Your task to perform on an android device: find which apps use the phone's location Image 0: 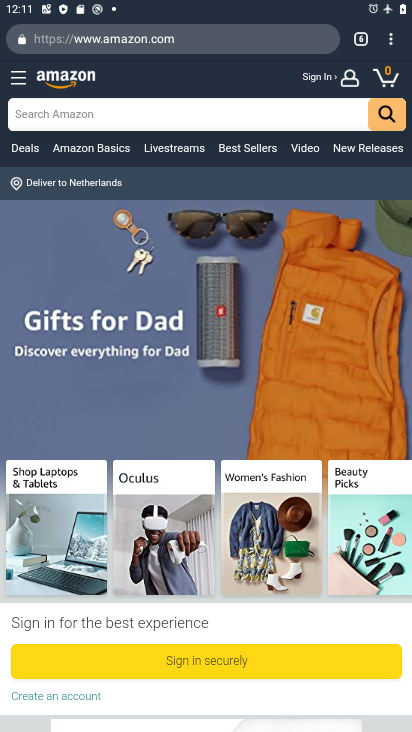
Step 0: press home button
Your task to perform on an android device: find which apps use the phone's location Image 1: 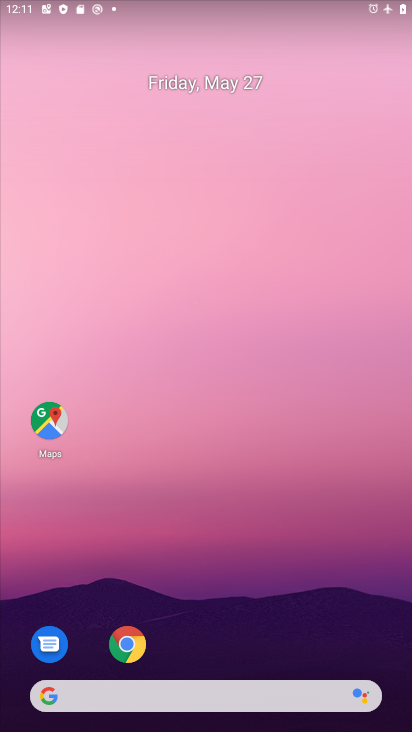
Step 1: drag from (203, 627) to (192, 190)
Your task to perform on an android device: find which apps use the phone's location Image 2: 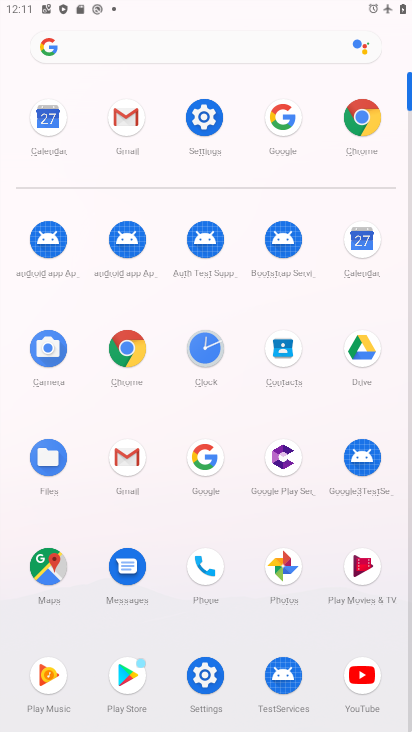
Step 2: click (220, 103)
Your task to perform on an android device: find which apps use the phone's location Image 3: 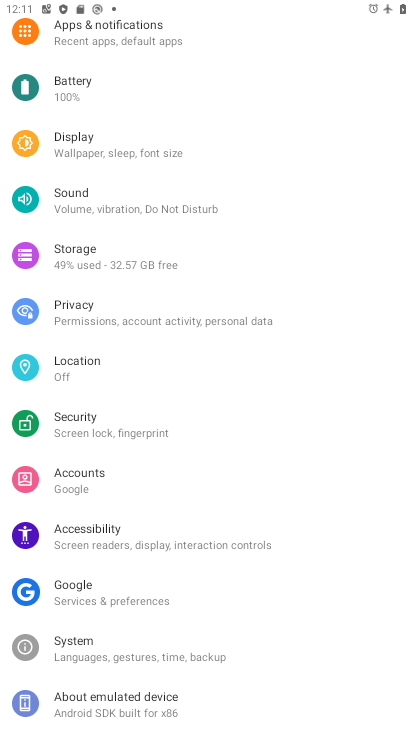
Step 3: click (99, 371)
Your task to perform on an android device: find which apps use the phone's location Image 4: 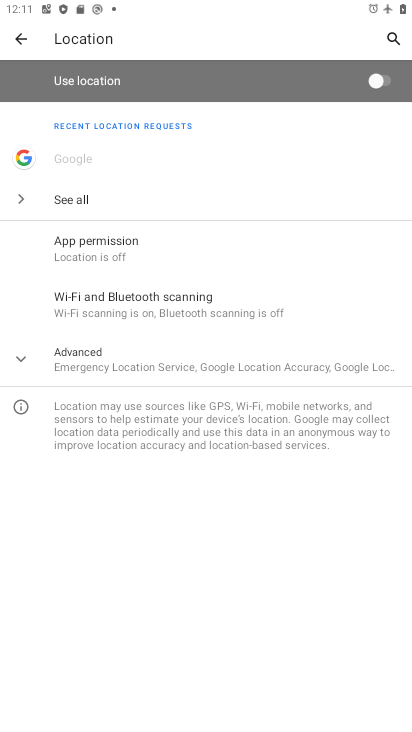
Step 4: click (126, 251)
Your task to perform on an android device: find which apps use the phone's location Image 5: 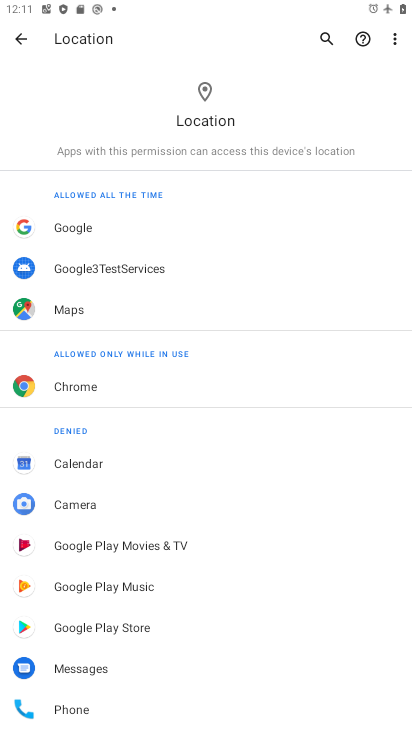
Step 5: task complete